Your task to perform on an android device: set default search engine in the chrome app Image 0: 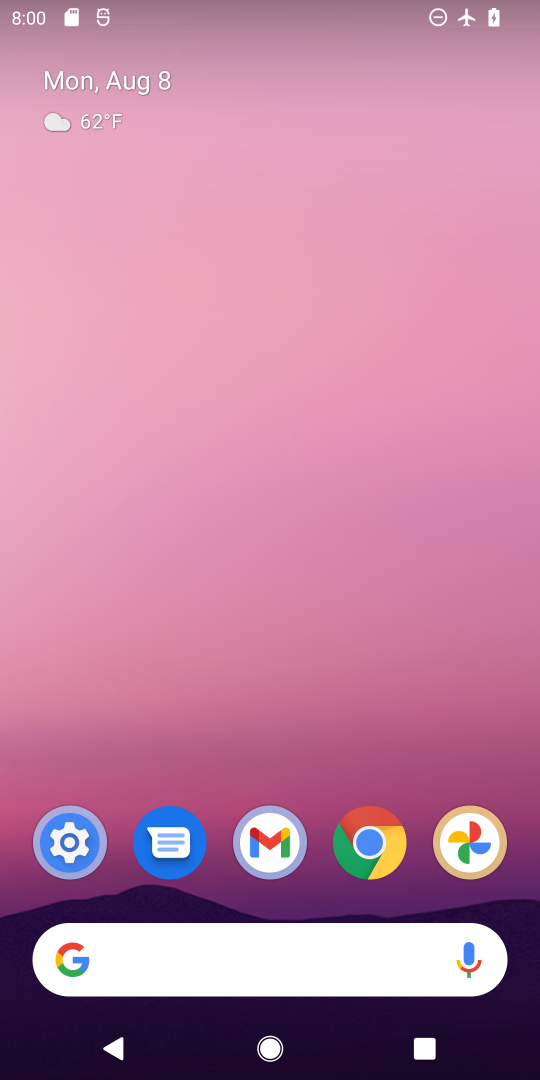
Step 0: click (386, 827)
Your task to perform on an android device: set default search engine in the chrome app Image 1: 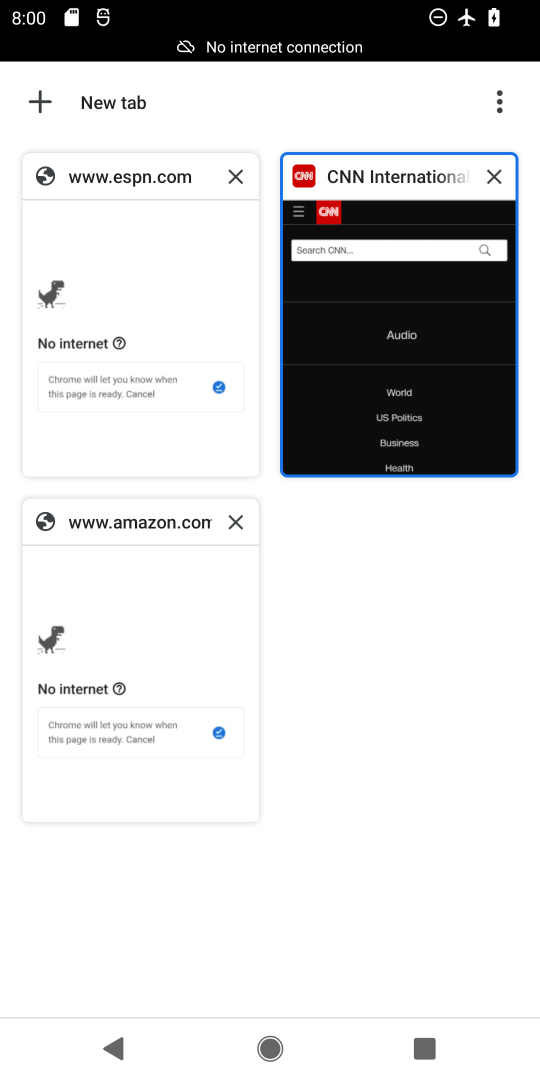
Step 1: click (38, 102)
Your task to perform on an android device: set default search engine in the chrome app Image 2: 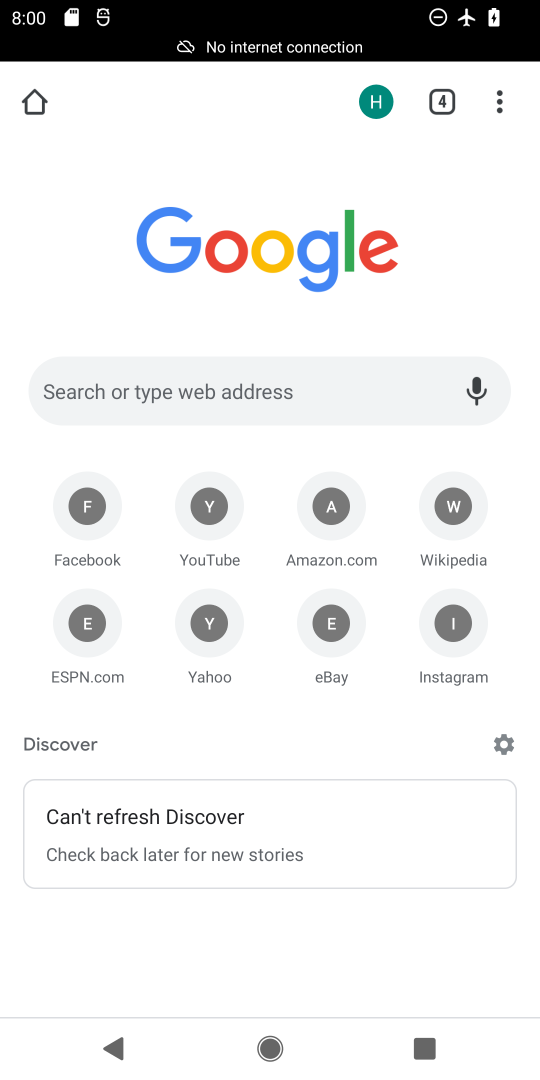
Step 2: click (498, 102)
Your task to perform on an android device: set default search engine in the chrome app Image 3: 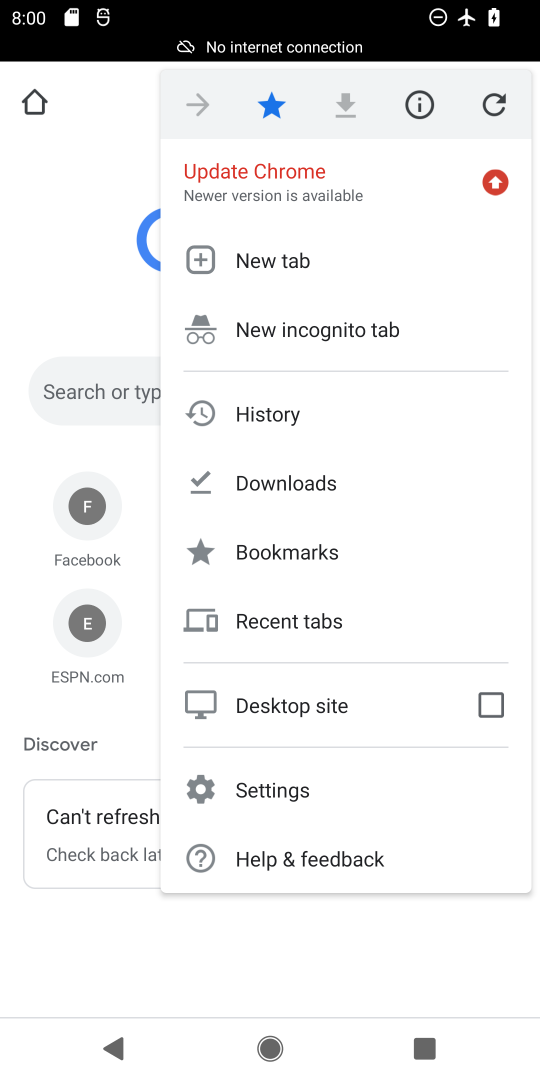
Step 3: click (272, 790)
Your task to perform on an android device: set default search engine in the chrome app Image 4: 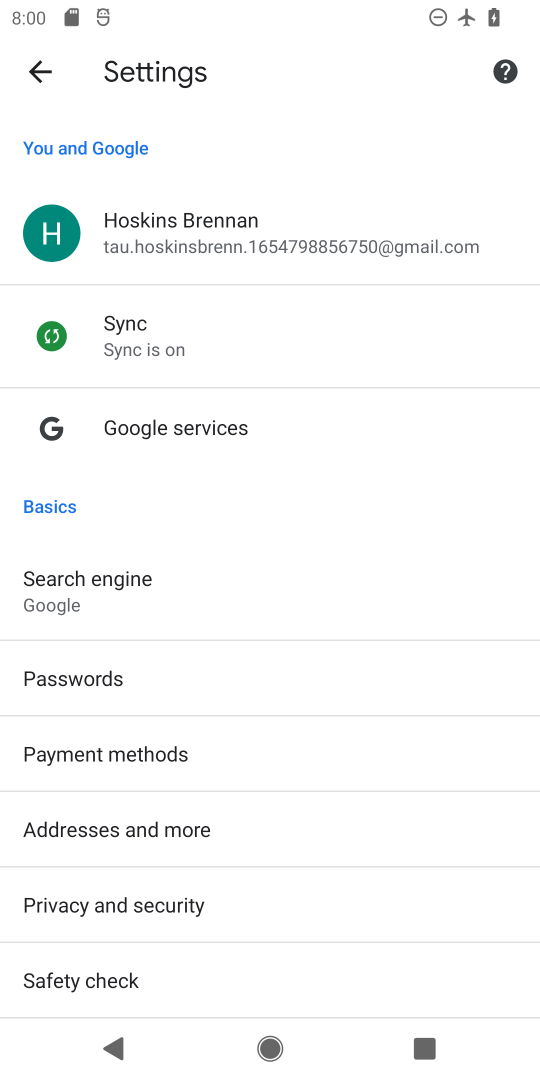
Step 4: drag from (346, 852) to (295, 270)
Your task to perform on an android device: set default search engine in the chrome app Image 5: 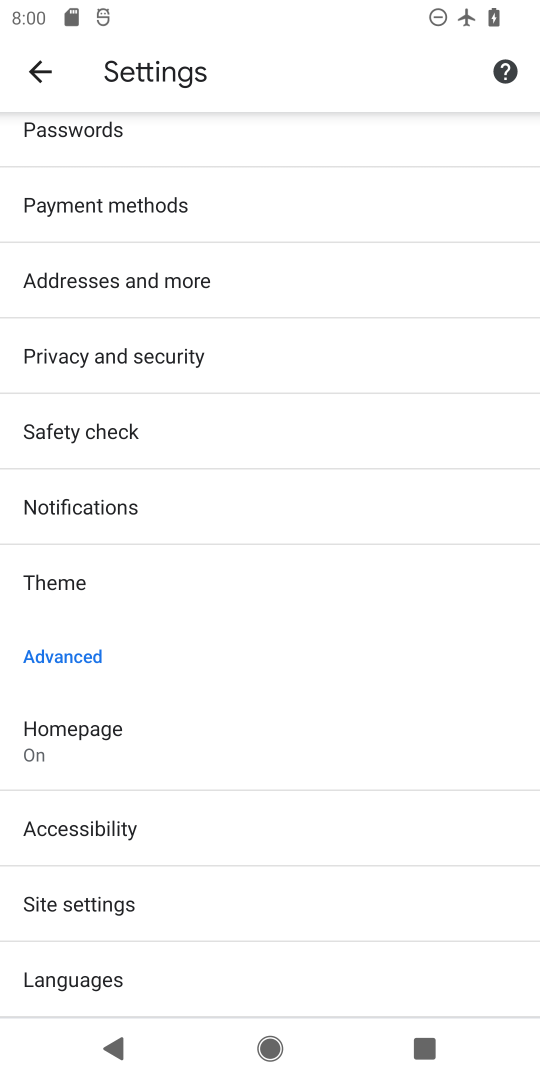
Step 5: drag from (33, 277) to (63, 624)
Your task to perform on an android device: set default search engine in the chrome app Image 6: 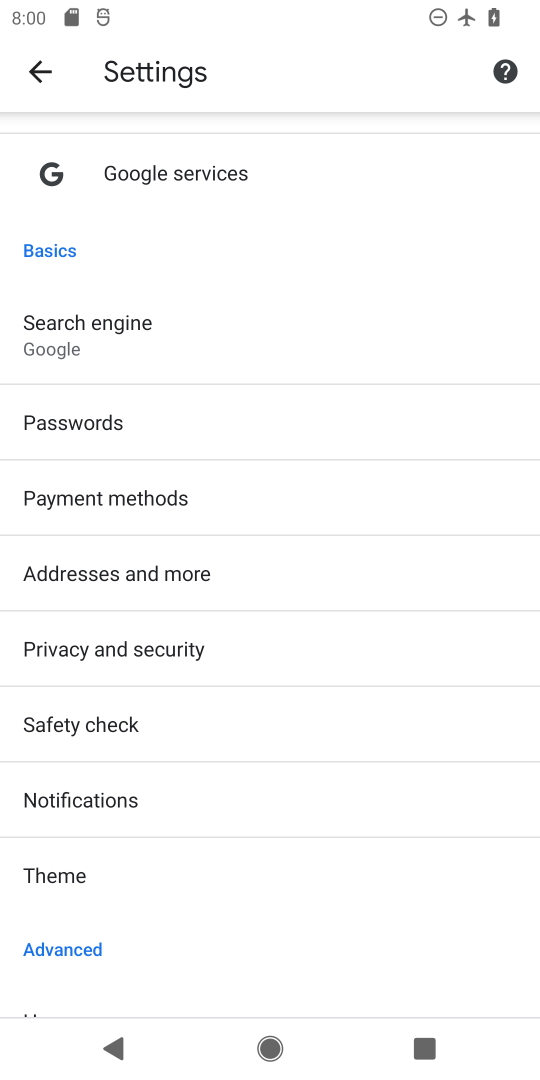
Step 6: click (41, 345)
Your task to perform on an android device: set default search engine in the chrome app Image 7: 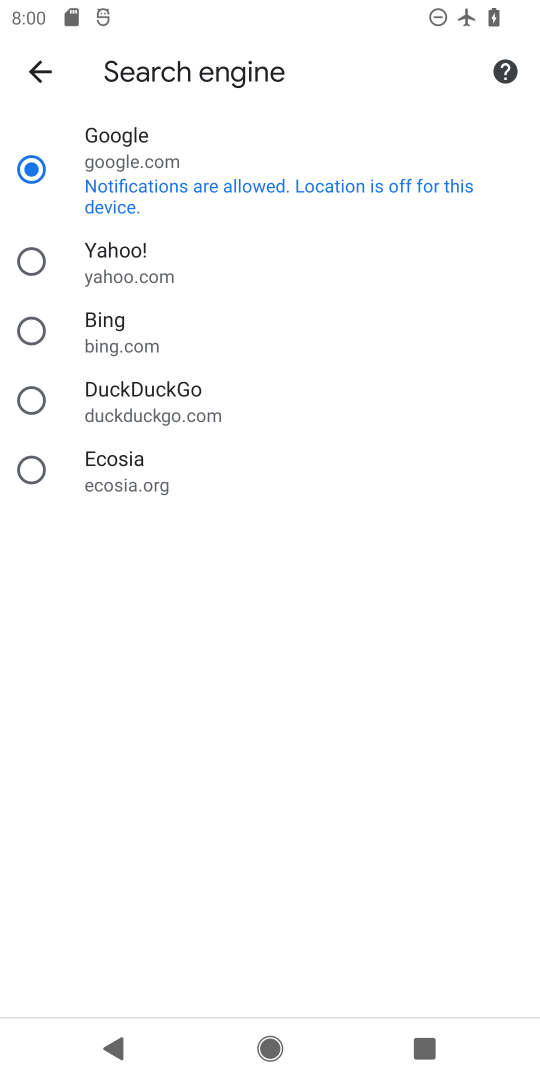
Step 7: click (66, 197)
Your task to perform on an android device: set default search engine in the chrome app Image 8: 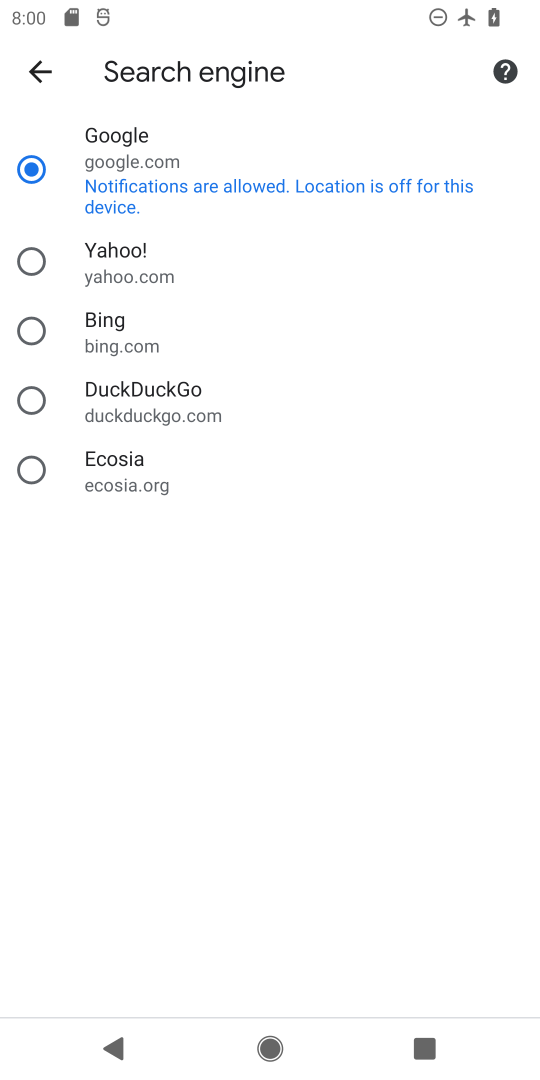
Step 8: click (61, 168)
Your task to perform on an android device: set default search engine in the chrome app Image 9: 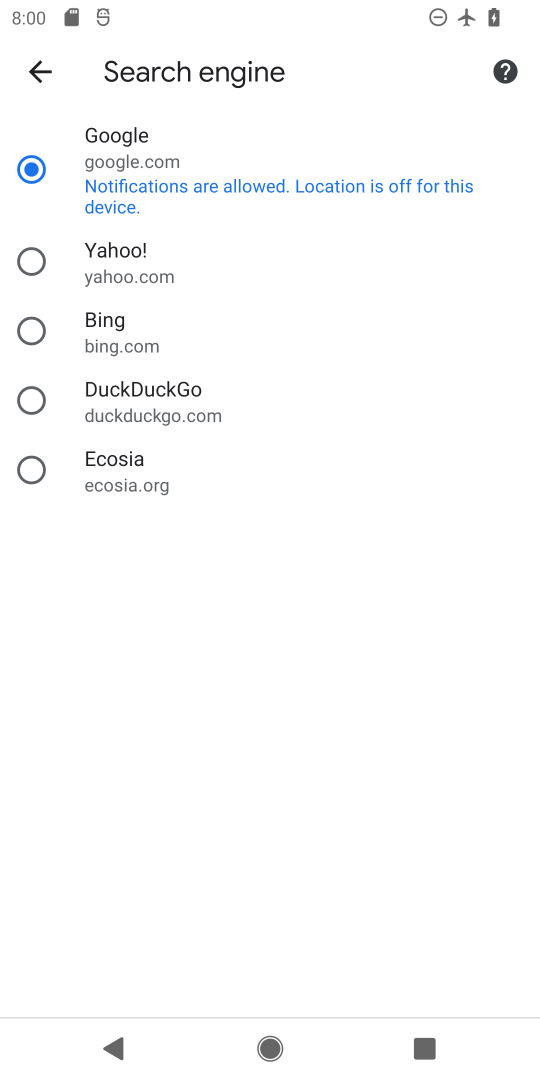
Step 9: task complete